Your task to perform on an android device: Open internet settings Image 0: 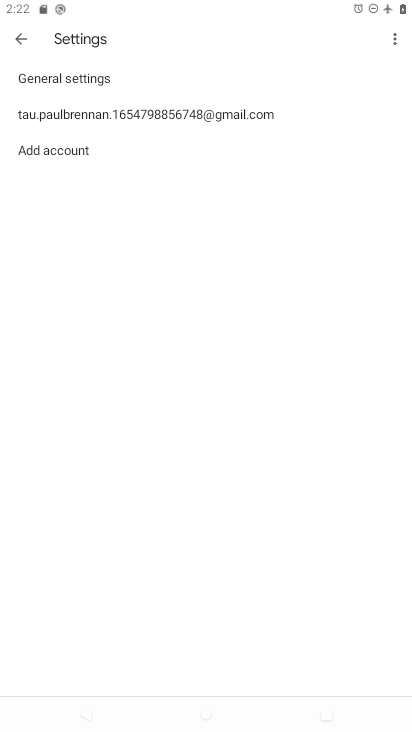
Step 0: press home button
Your task to perform on an android device: Open internet settings Image 1: 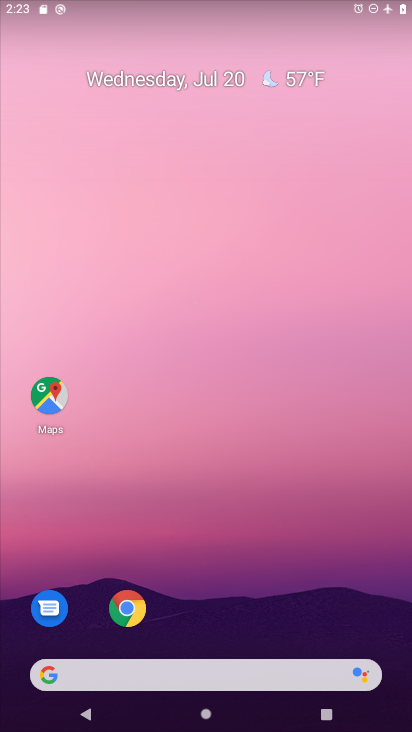
Step 1: drag from (278, 675) to (325, 250)
Your task to perform on an android device: Open internet settings Image 2: 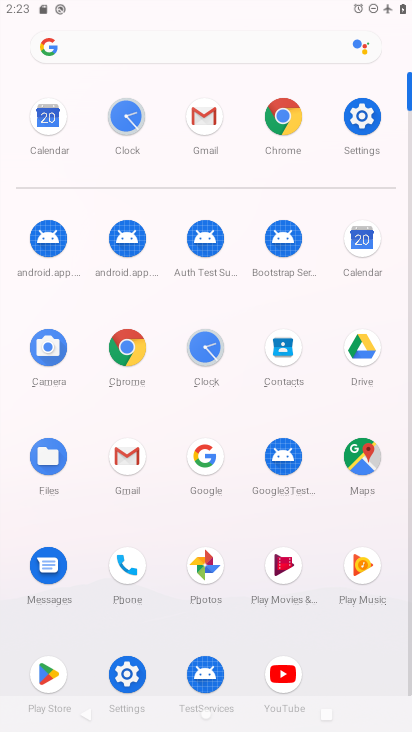
Step 2: click (339, 119)
Your task to perform on an android device: Open internet settings Image 3: 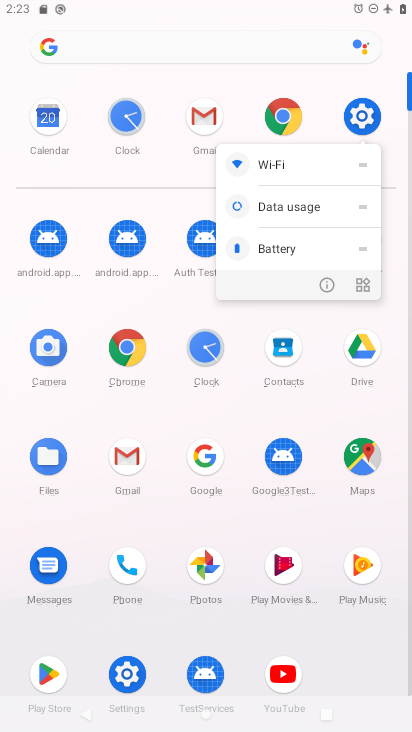
Step 3: click (349, 116)
Your task to perform on an android device: Open internet settings Image 4: 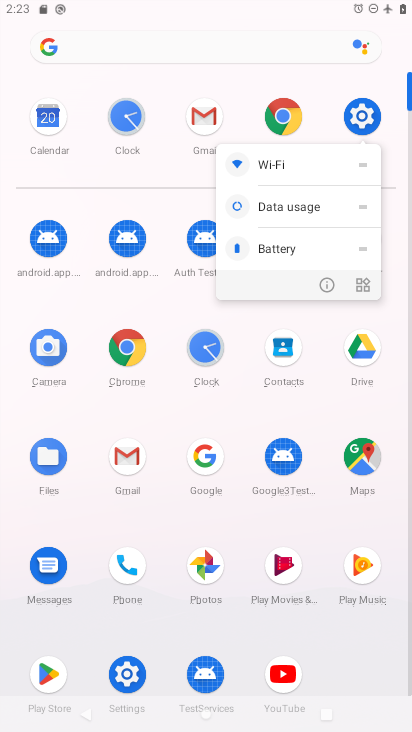
Step 4: click (349, 116)
Your task to perform on an android device: Open internet settings Image 5: 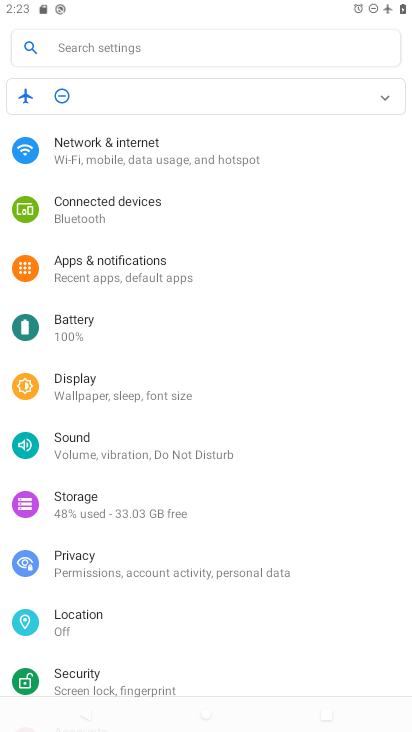
Step 5: click (109, 140)
Your task to perform on an android device: Open internet settings Image 6: 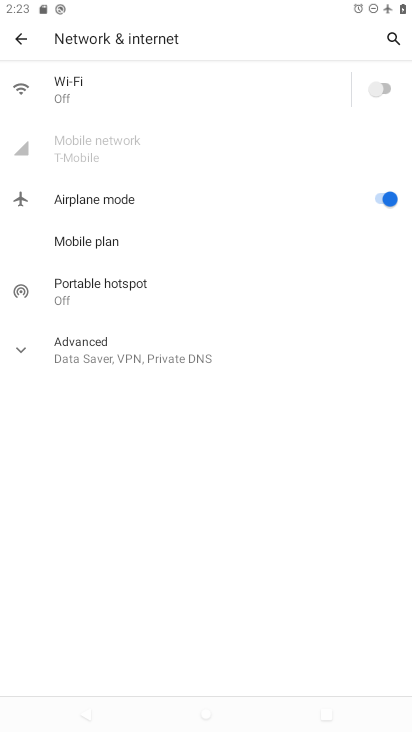
Step 6: task complete